Your task to perform on an android device: turn on wifi Image 0: 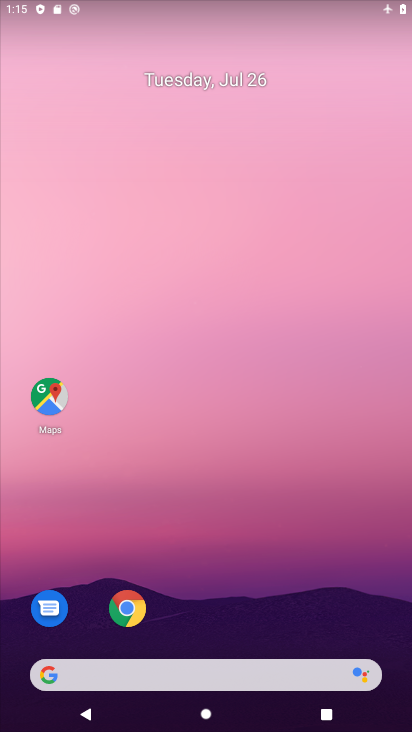
Step 0: drag from (259, 611) to (278, 173)
Your task to perform on an android device: turn on wifi Image 1: 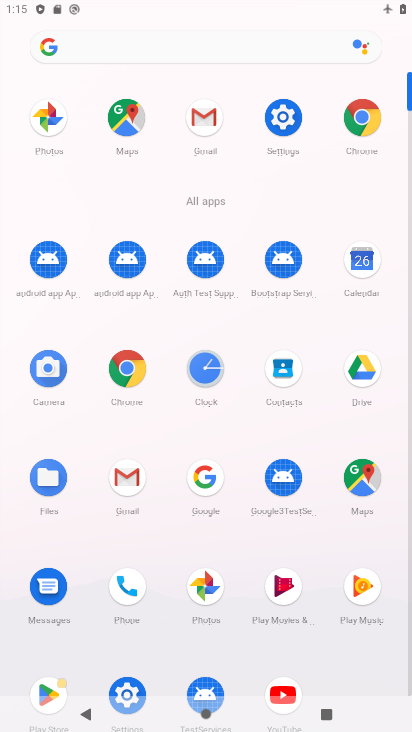
Step 1: click (289, 117)
Your task to perform on an android device: turn on wifi Image 2: 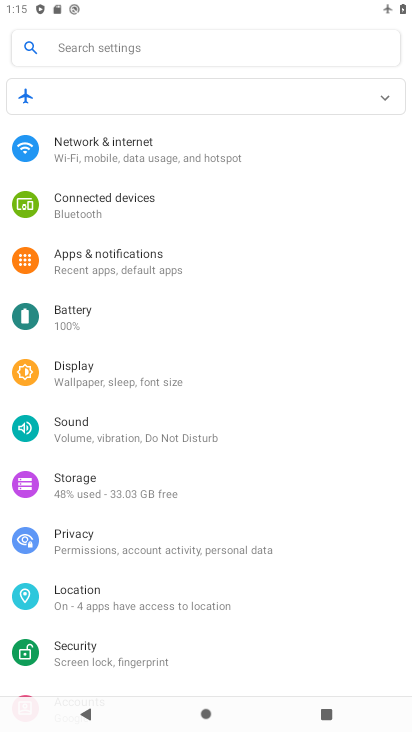
Step 2: click (212, 159)
Your task to perform on an android device: turn on wifi Image 3: 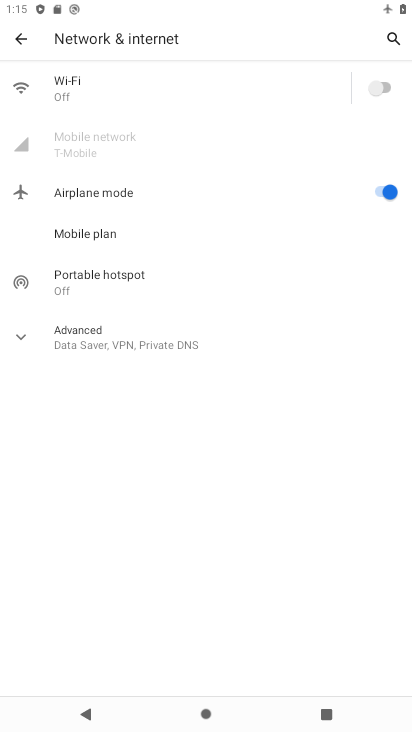
Step 3: click (378, 88)
Your task to perform on an android device: turn on wifi Image 4: 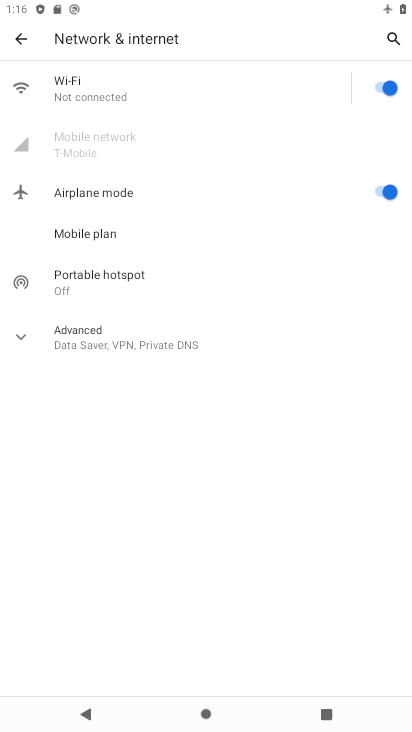
Step 4: task complete